Your task to perform on an android device: Where can I buy a nice beach sandals? Image 0: 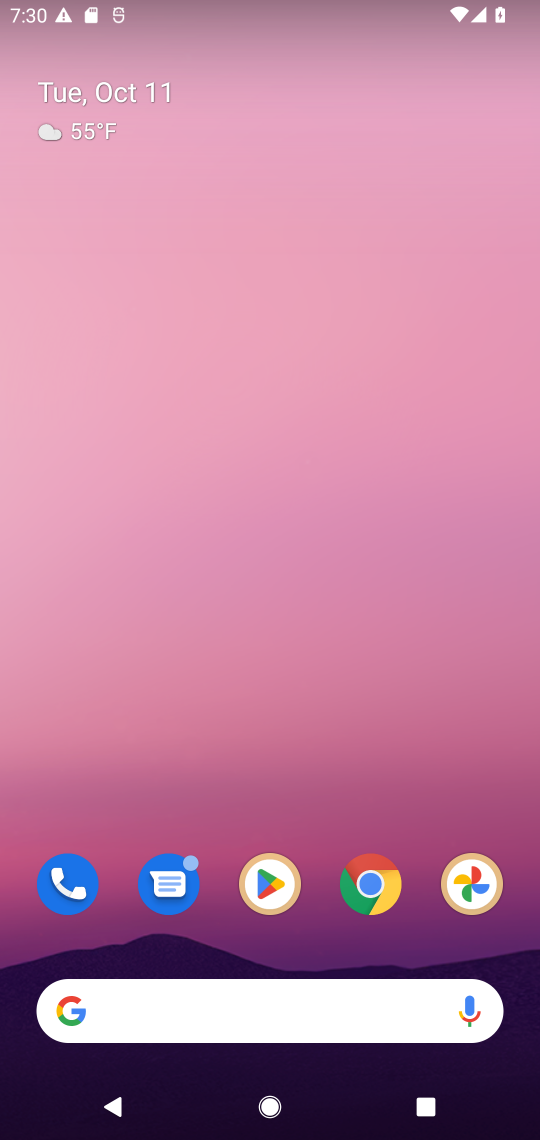
Step 0: drag from (312, 956) to (252, 88)
Your task to perform on an android device: Where can I buy a nice beach sandals? Image 1: 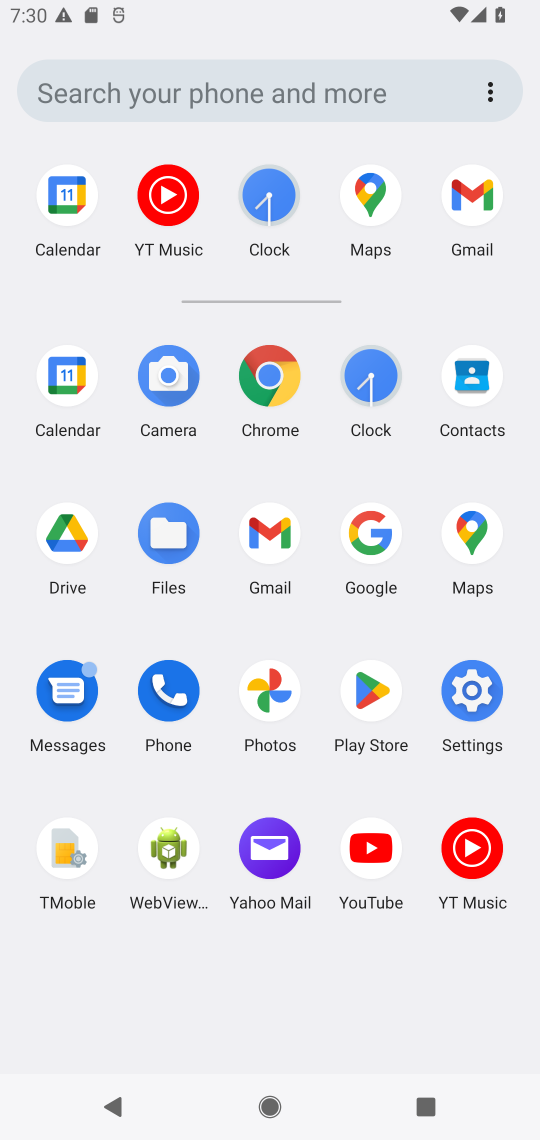
Step 1: click (379, 530)
Your task to perform on an android device: Where can I buy a nice beach sandals? Image 2: 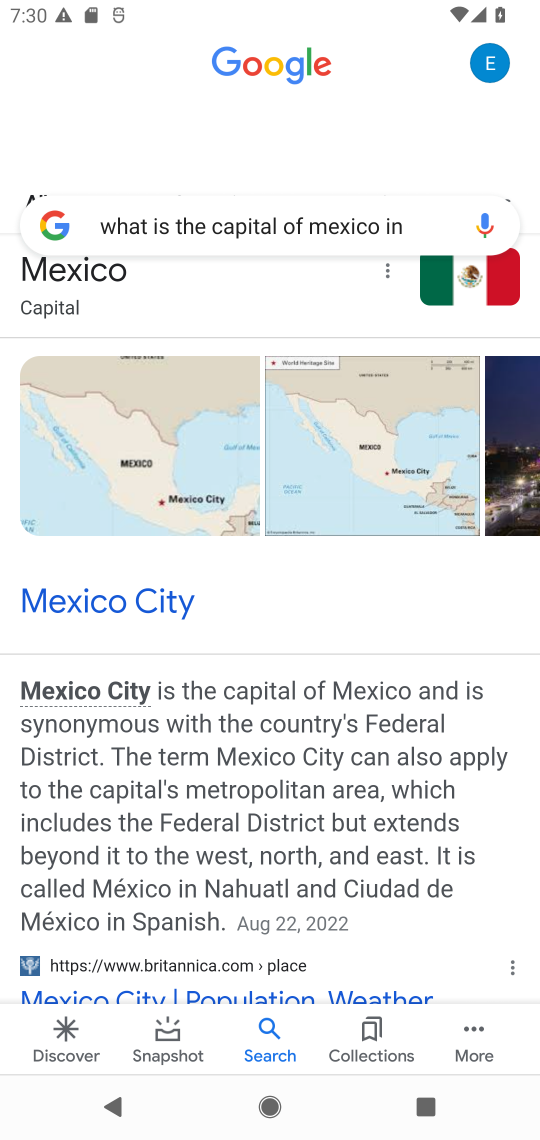
Step 2: click (253, 229)
Your task to perform on an android device: Where can I buy a nice beach sandals? Image 3: 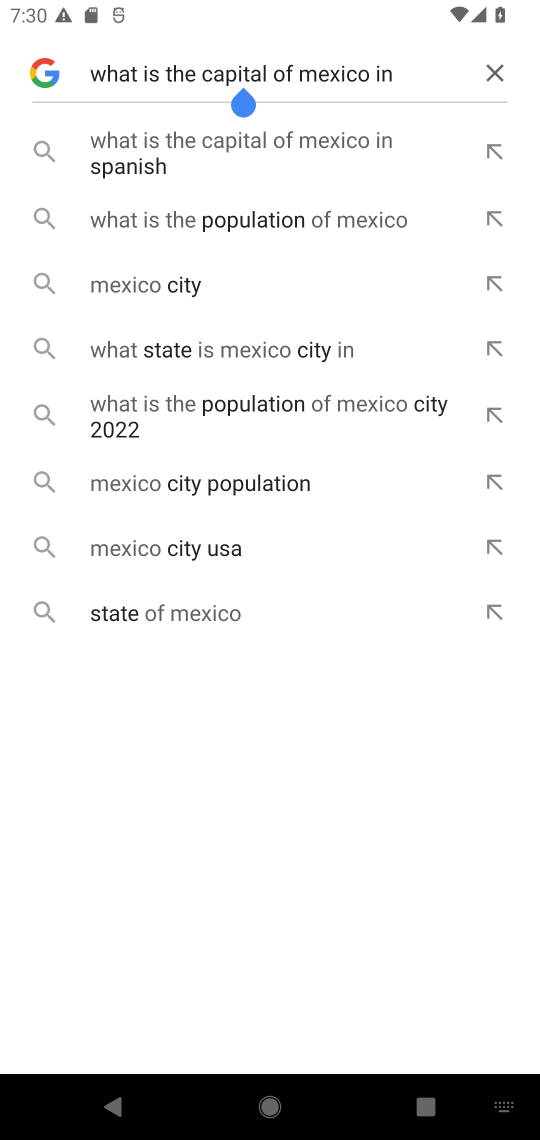
Step 3: click (499, 62)
Your task to perform on an android device: Where can I buy a nice beach sandals? Image 4: 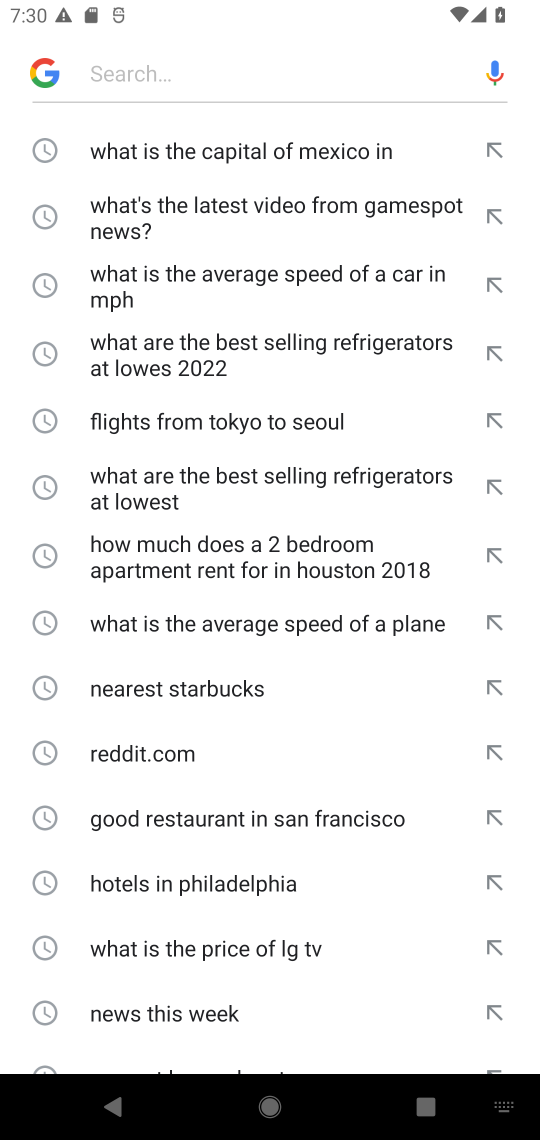
Step 4: type "Where can I buy a nice beach sandals?"
Your task to perform on an android device: Where can I buy a nice beach sandals? Image 5: 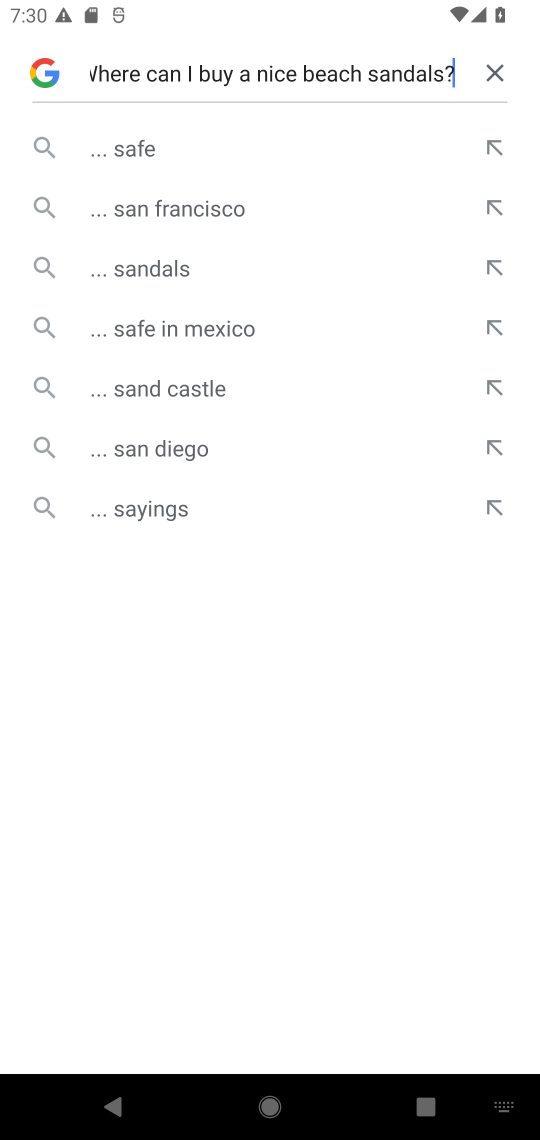
Step 5: type ""
Your task to perform on an android device: Where can I buy a nice beach sandals? Image 6: 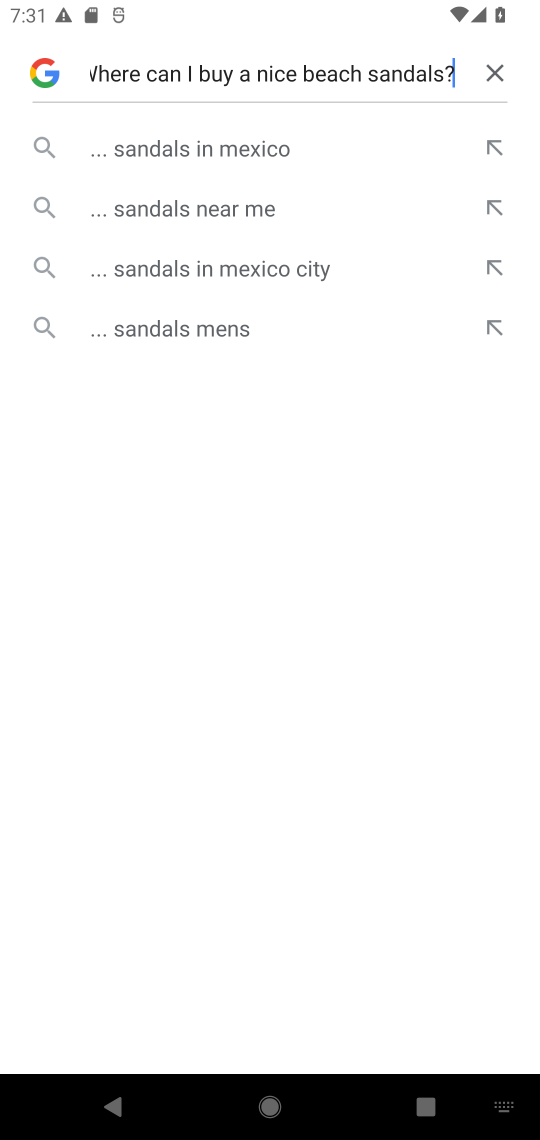
Step 6: click (221, 328)
Your task to perform on an android device: Where can I buy a nice beach sandals? Image 7: 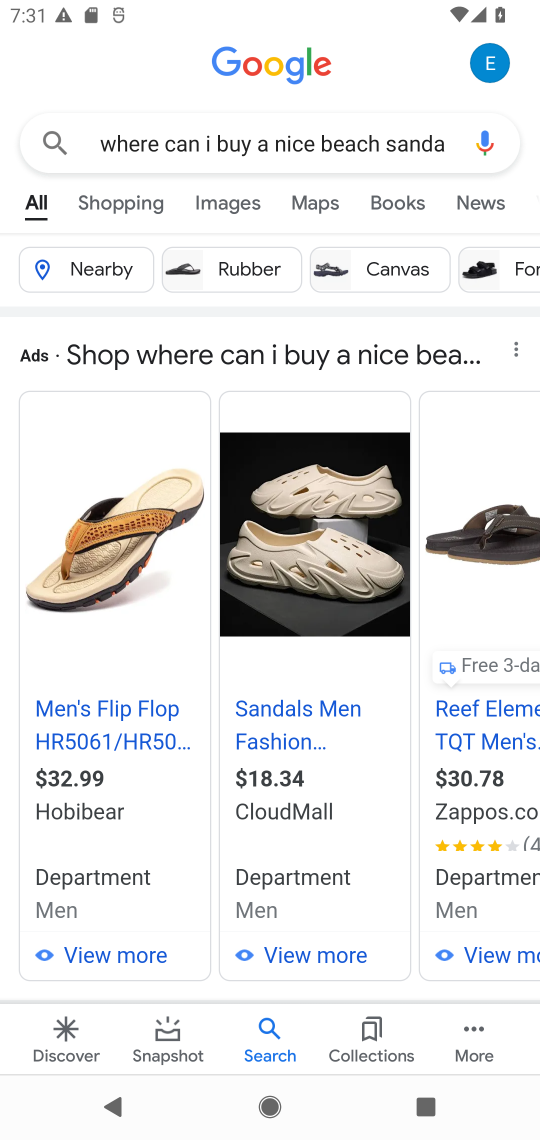
Step 7: task complete